Your task to perform on an android device: How much does a 2 bedroom apartment rent for in San Francisco? Image 0: 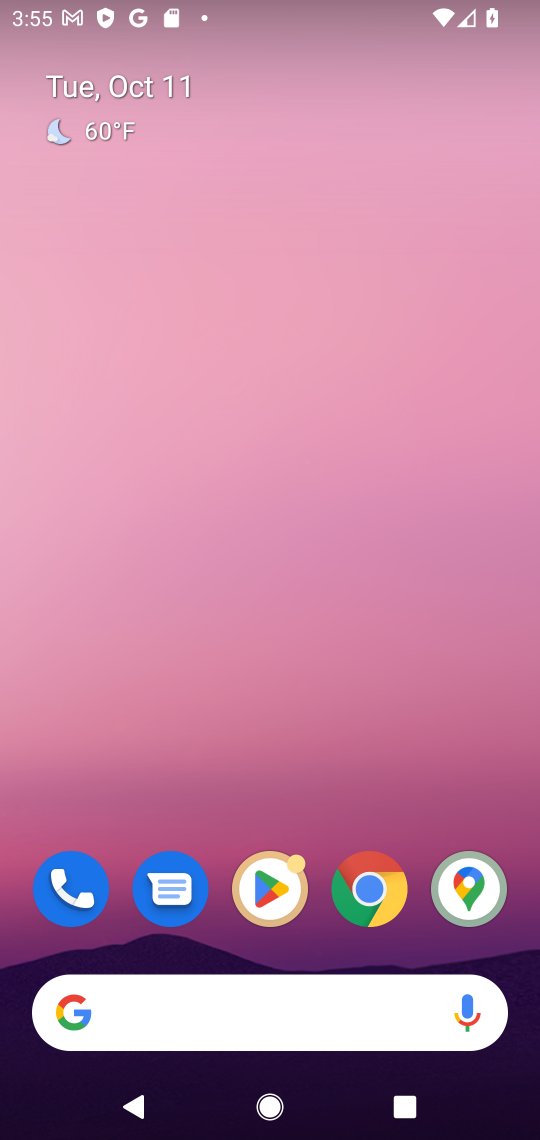
Step 0: drag from (175, 928) to (235, 334)
Your task to perform on an android device: How much does a 2 bedroom apartment rent for in San Francisco? Image 1: 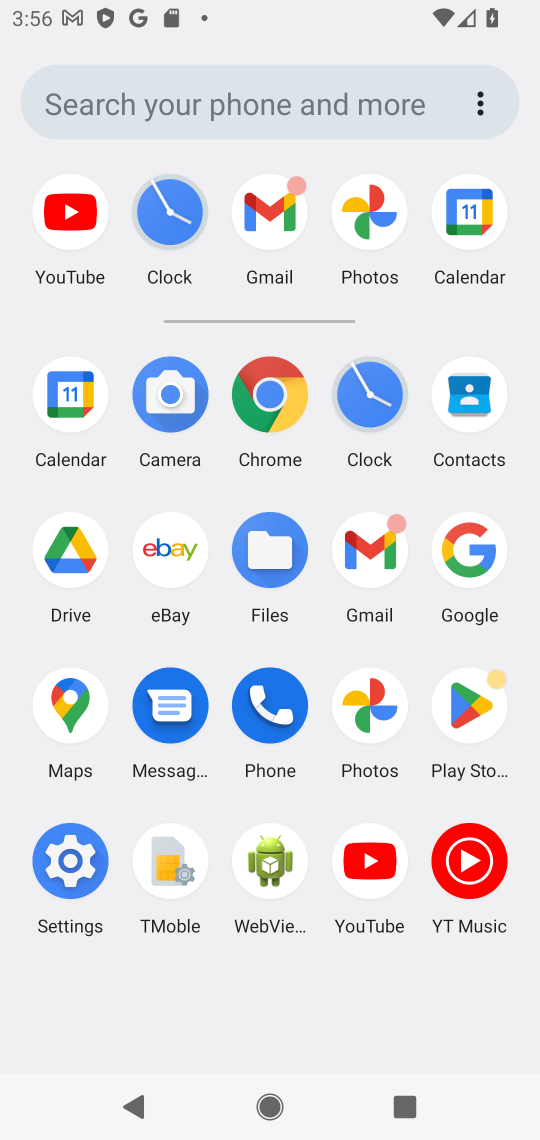
Step 1: click (477, 544)
Your task to perform on an android device: How much does a 2 bedroom apartment rent for in San Francisco? Image 2: 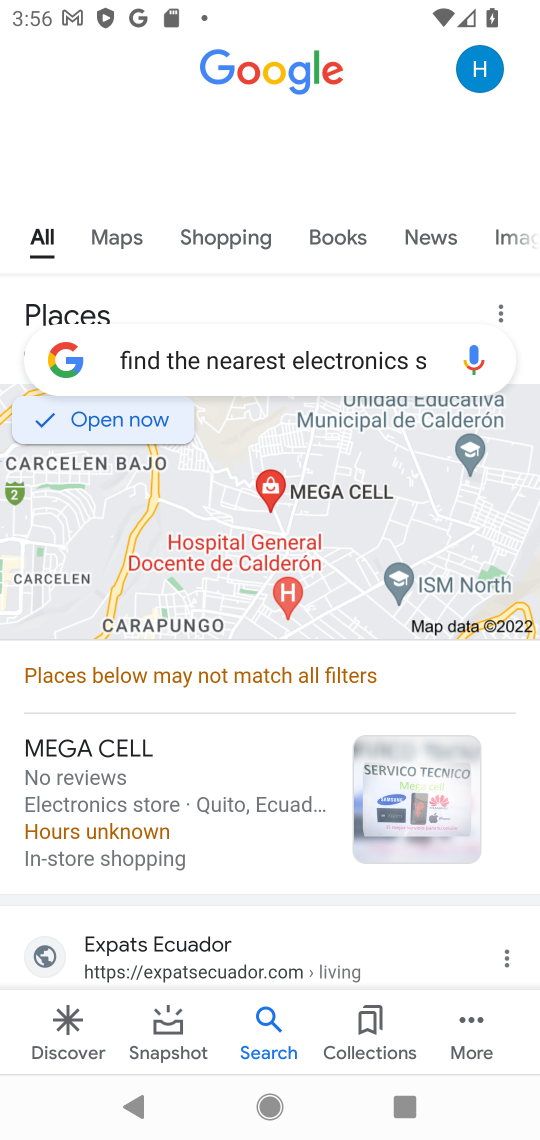
Step 2: click (267, 354)
Your task to perform on an android device: How much does a 2 bedroom apartment rent for in San Francisco? Image 3: 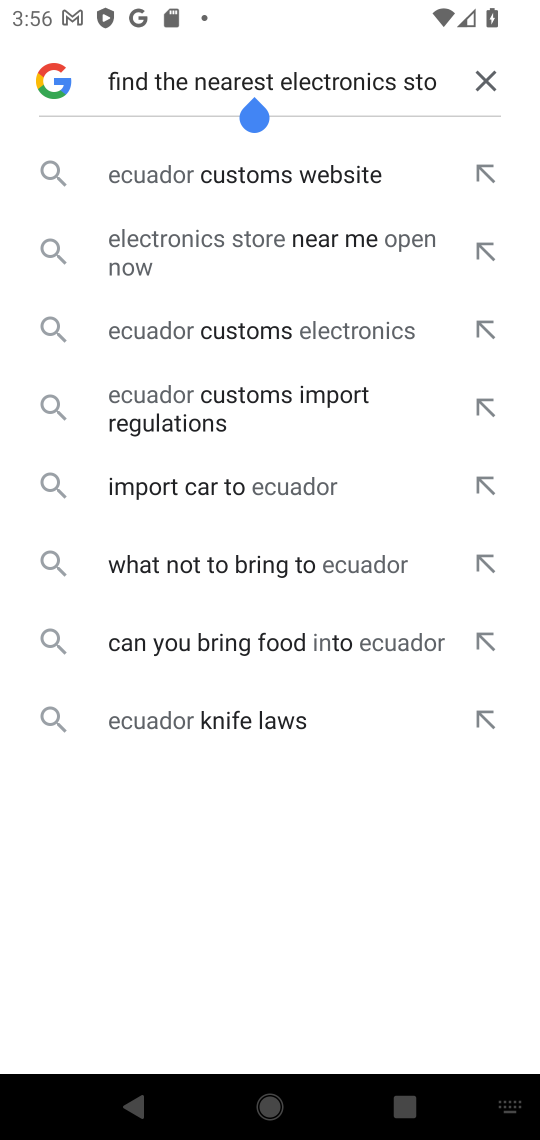
Step 3: click (479, 77)
Your task to perform on an android device: How much does a 2 bedroom apartment rent for in San Francisco? Image 4: 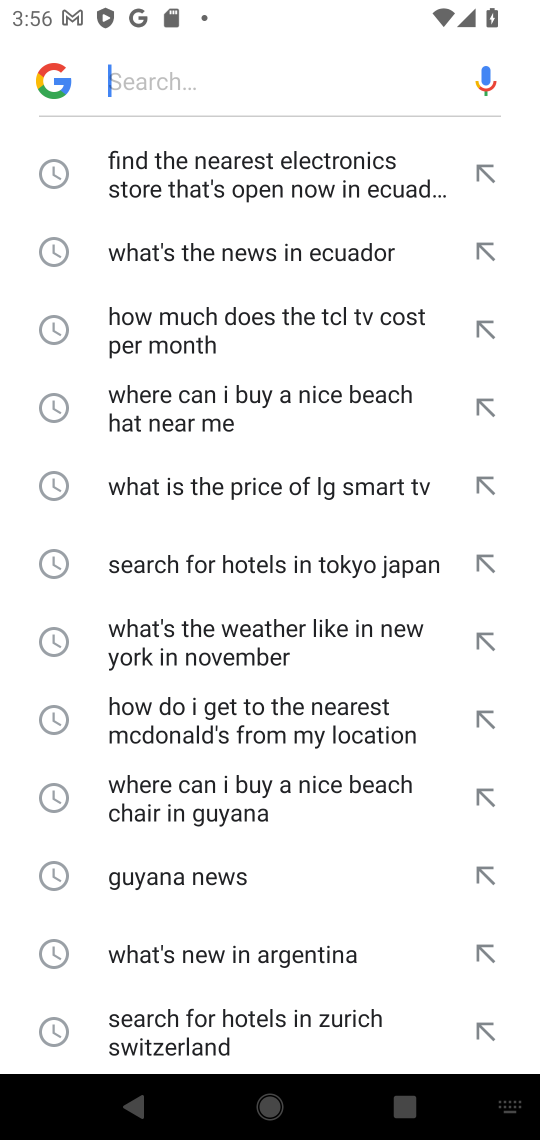
Step 4: click (162, 59)
Your task to perform on an android device: How much does a 2 bedroom apartment rent for in San Francisco? Image 5: 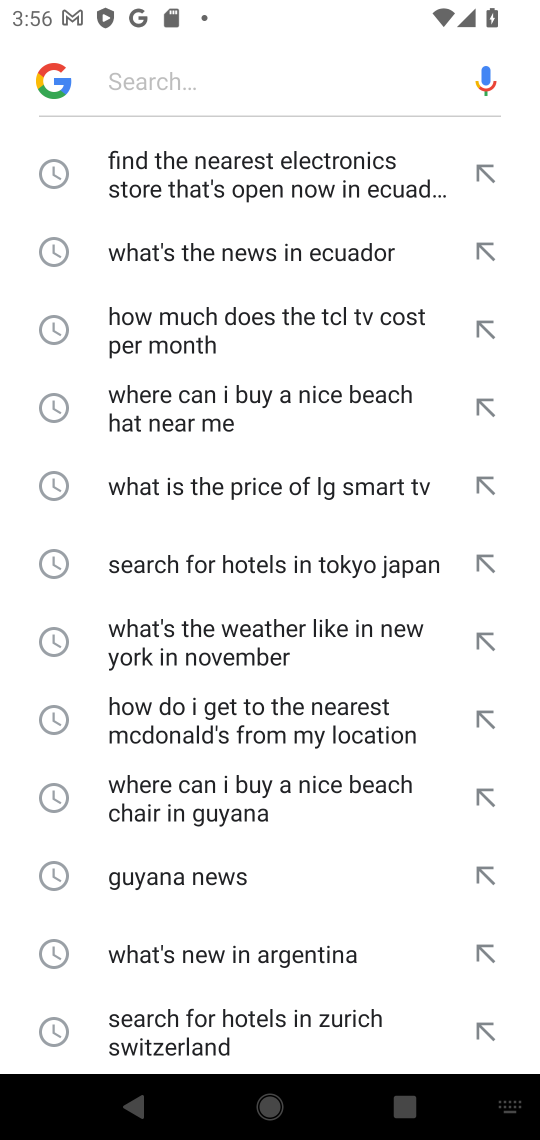
Step 5: type "How much does a 2 bedroom apartment rent for in San Francisco? "
Your task to perform on an android device: How much does a 2 bedroom apartment rent for in San Francisco? Image 6: 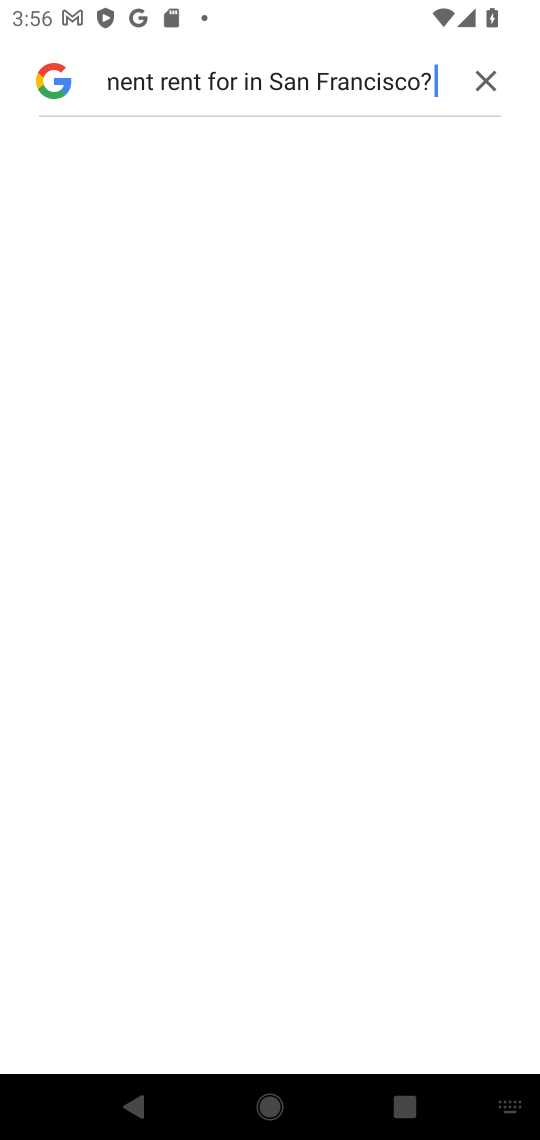
Step 6: click (319, 83)
Your task to perform on an android device: How much does a 2 bedroom apartment rent for in San Francisco? Image 7: 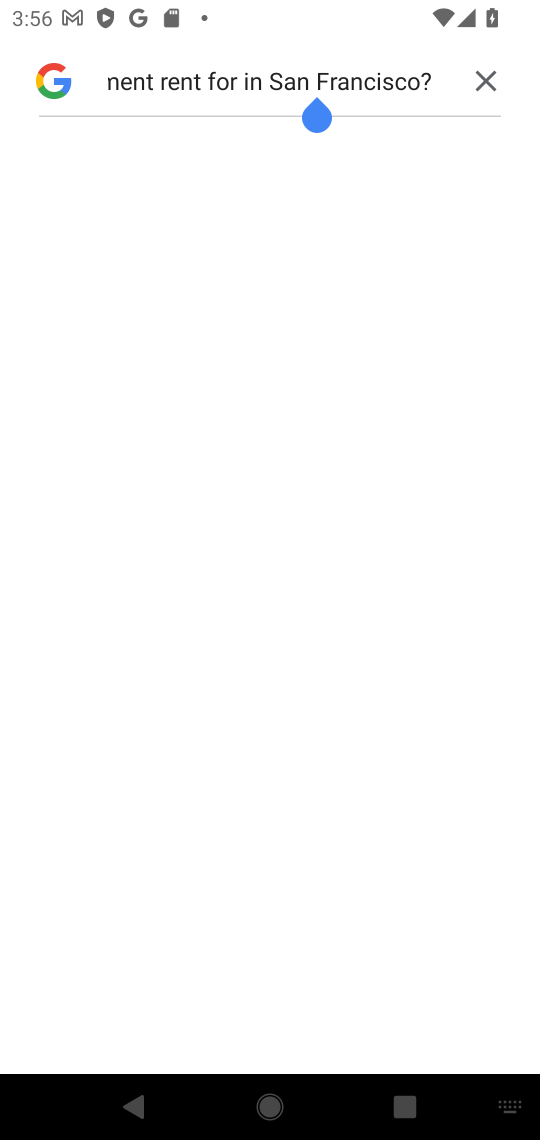
Step 7: click (382, 166)
Your task to perform on an android device: How much does a 2 bedroom apartment rent for in San Francisco? Image 8: 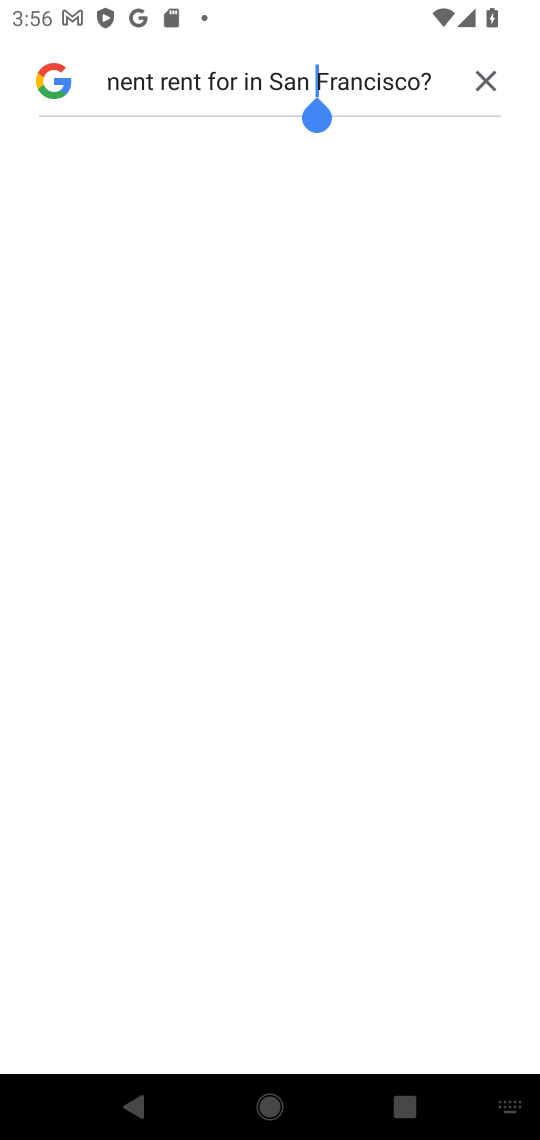
Step 8: click (402, 75)
Your task to perform on an android device: How much does a 2 bedroom apartment rent for in San Francisco? Image 9: 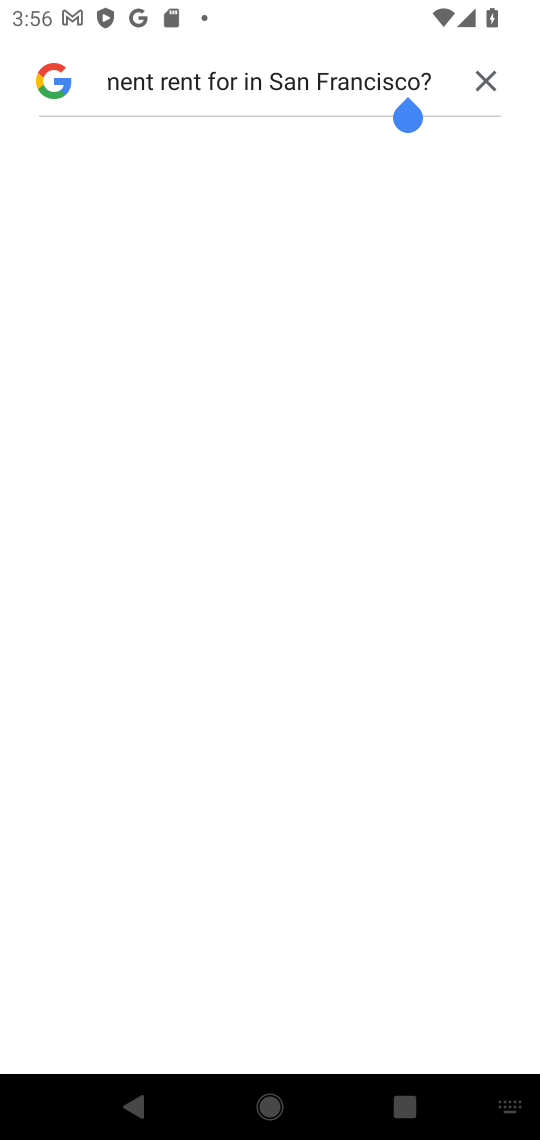
Step 9: click (418, 87)
Your task to perform on an android device: How much does a 2 bedroom apartment rent for in San Francisco? Image 10: 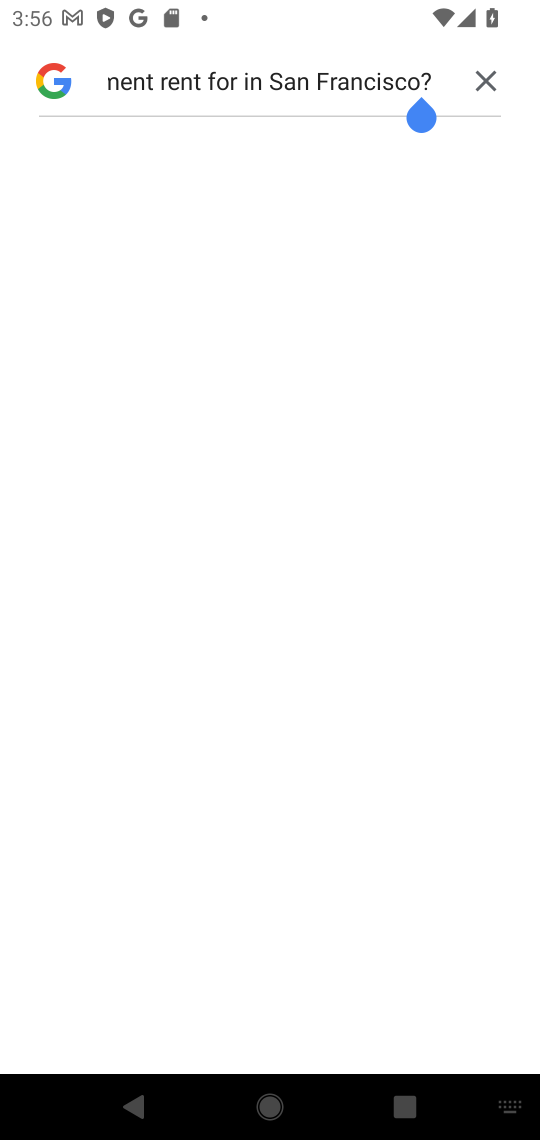
Step 10: click (429, 70)
Your task to perform on an android device: How much does a 2 bedroom apartment rent for in San Francisco? Image 11: 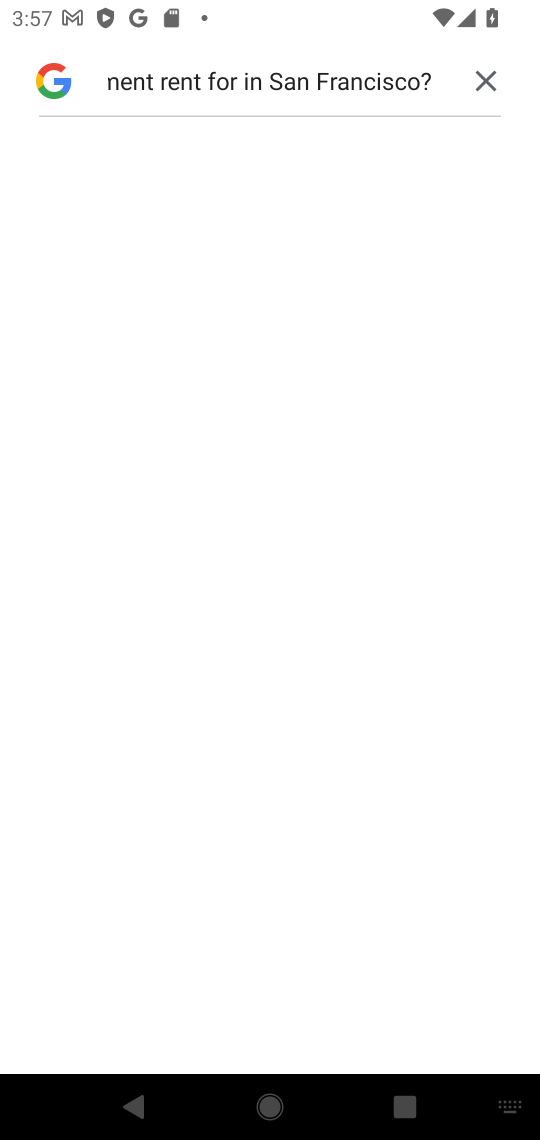
Step 11: click (491, 86)
Your task to perform on an android device: How much does a 2 bedroom apartment rent for in San Francisco? Image 12: 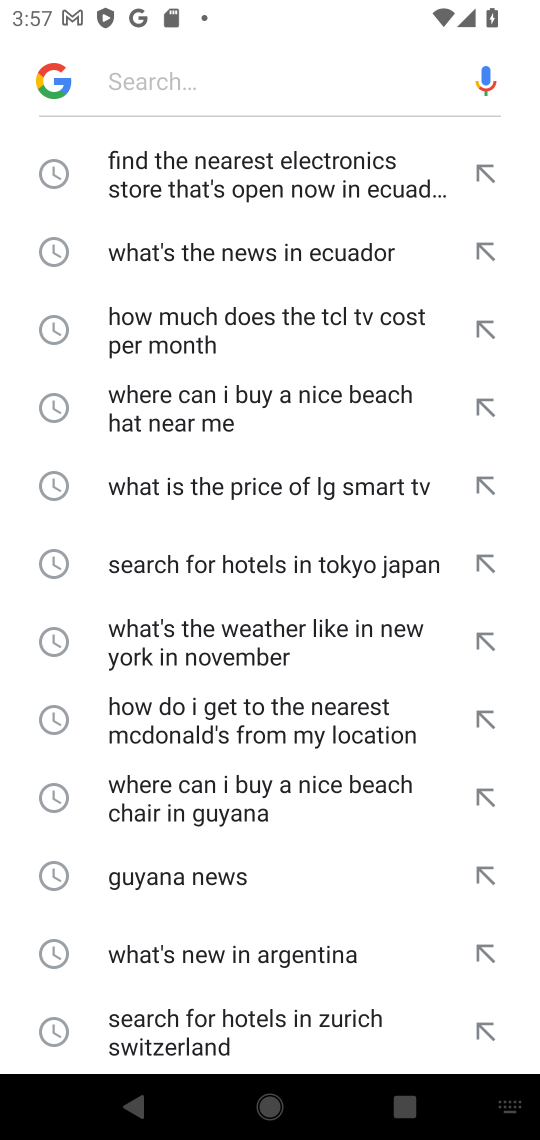
Step 12: click (217, 72)
Your task to perform on an android device: How much does a 2 bedroom apartment rent for in San Francisco? Image 13: 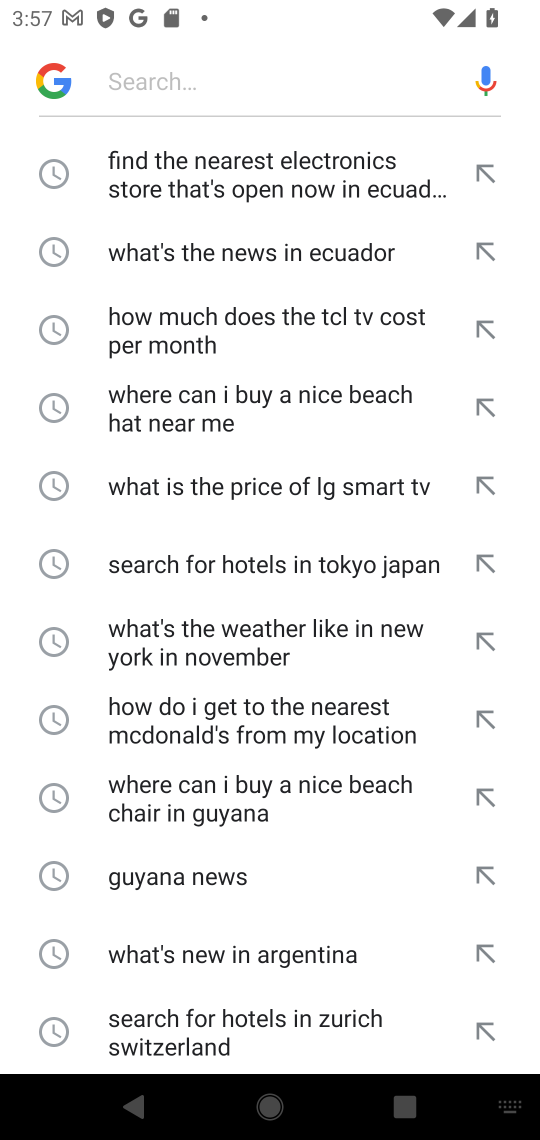
Step 13: type "How much does a 2 bedroom apartment rent for in San Francisco "
Your task to perform on an android device: How much does a 2 bedroom apartment rent for in San Francisco? Image 14: 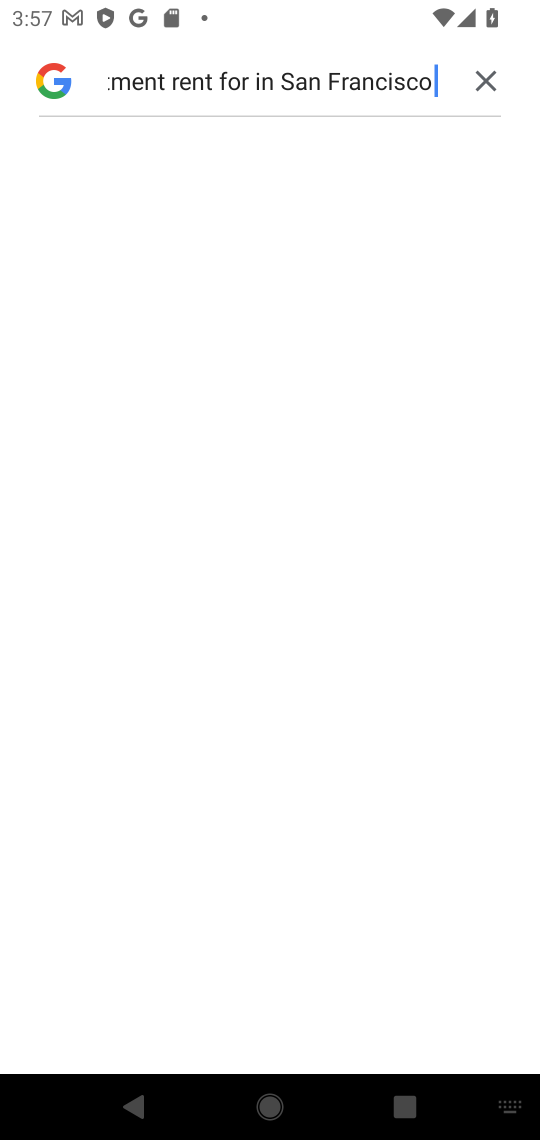
Step 14: click (183, 148)
Your task to perform on an android device: How much does a 2 bedroom apartment rent for in San Francisco? Image 15: 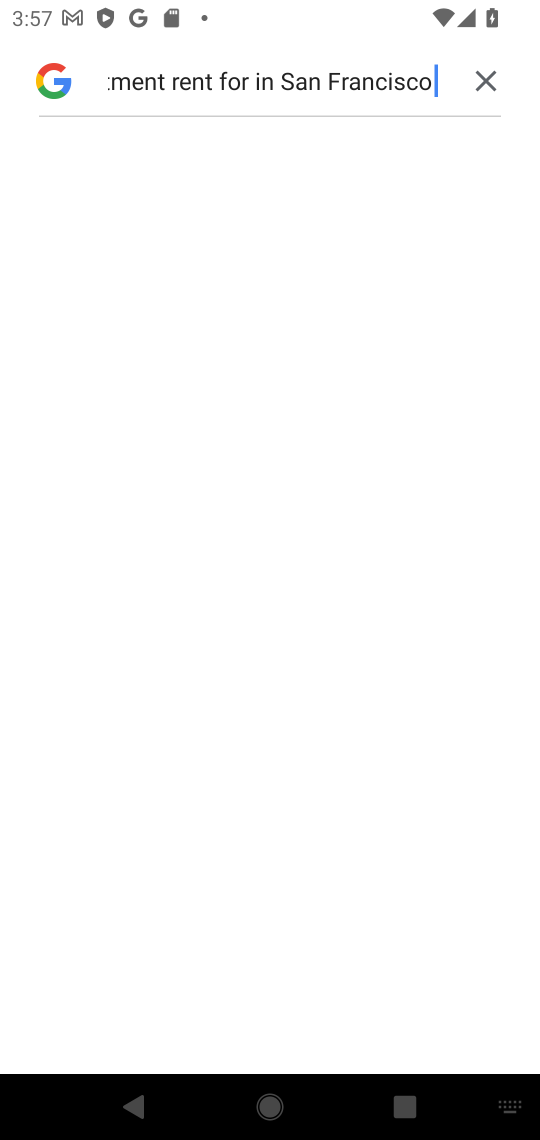
Step 15: click (263, 79)
Your task to perform on an android device: How much does a 2 bedroom apartment rent for in San Francisco? Image 16: 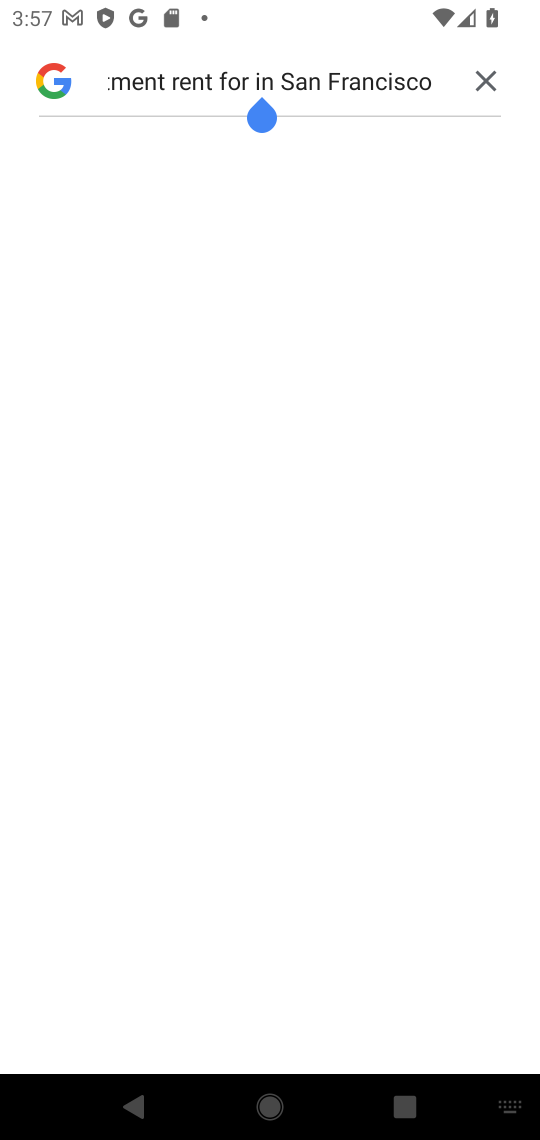
Step 16: click (444, 74)
Your task to perform on an android device: How much does a 2 bedroom apartment rent for in San Francisco? Image 17: 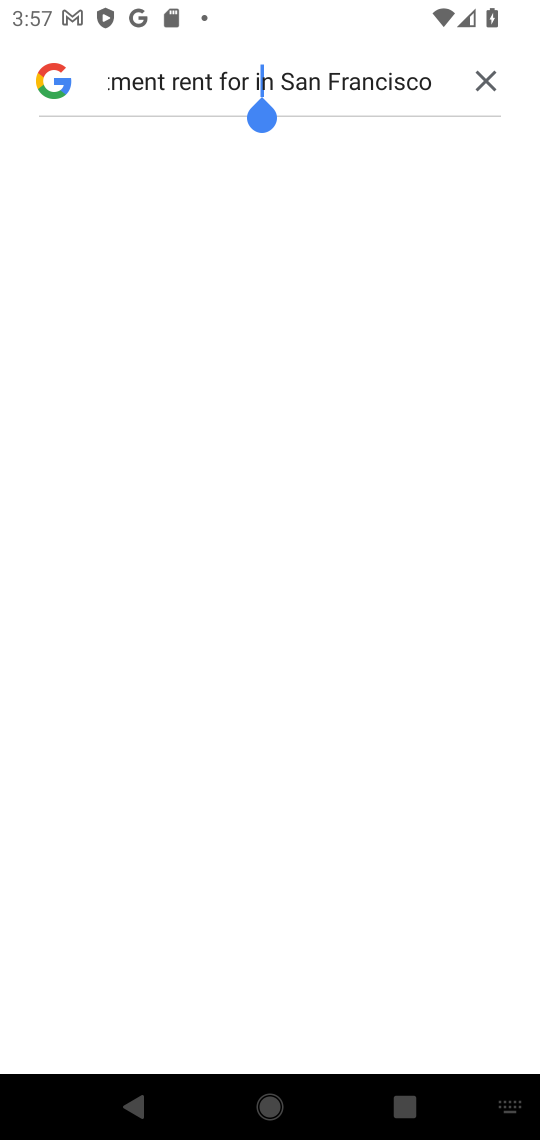
Step 17: click (432, 93)
Your task to perform on an android device: How much does a 2 bedroom apartment rent for in San Francisco? Image 18: 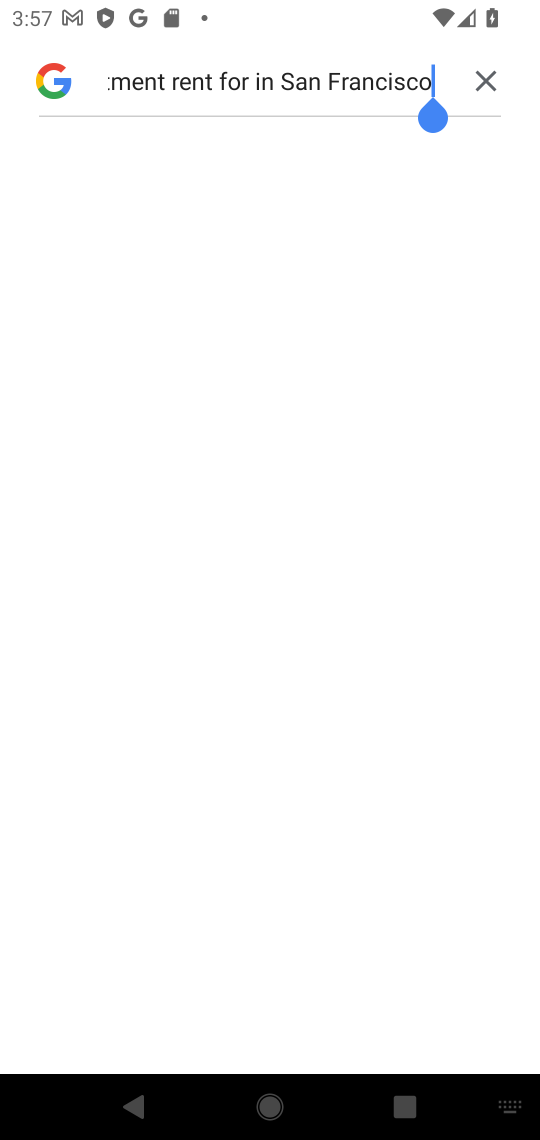
Step 18: click (432, 93)
Your task to perform on an android device: How much does a 2 bedroom apartment rent for in San Francisco? Image 19: 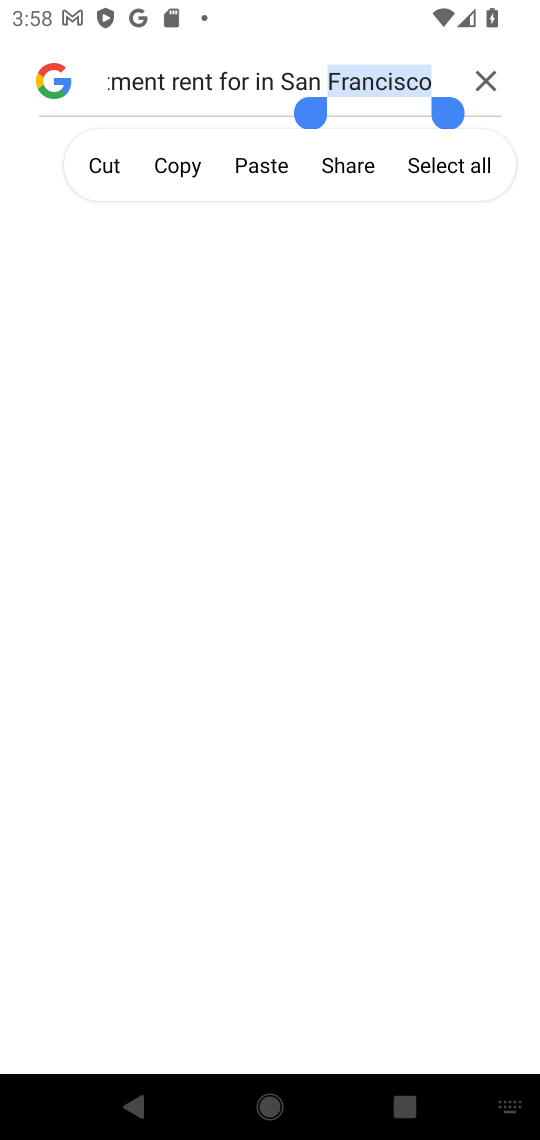
Step 19: click (498, 90)
Your task to perform on an android device: How much does a 2 bedroom apartment rent for in San Francisco? Image 20: 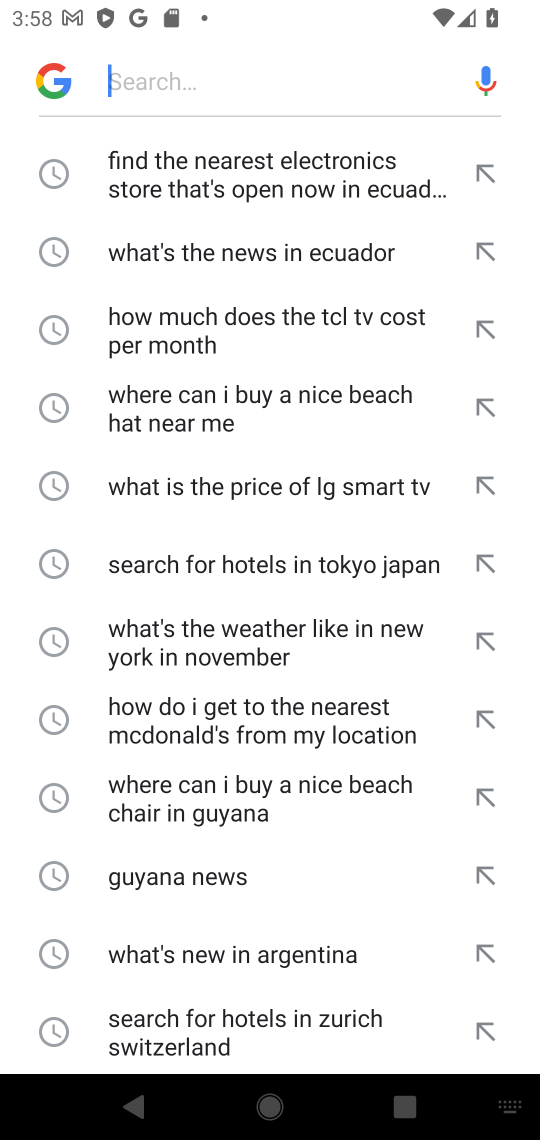
Step 20: click (243, 89)
Your task to perform on an android device: How much does a 2 bedroom apartment rent for in San Francisco? Image 21: 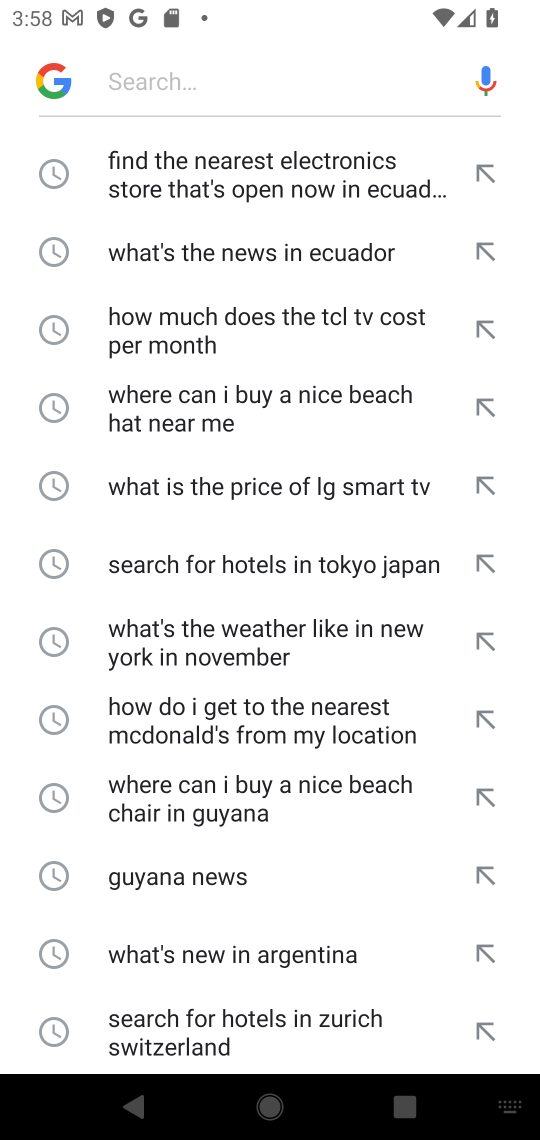
Step 21: type "How much does a 2 bedroom apartment rent for in San Francisco? "
Your task to perform on an android device: How much does a 2 bedroom apartment rent for in San Francisco? Image 22: 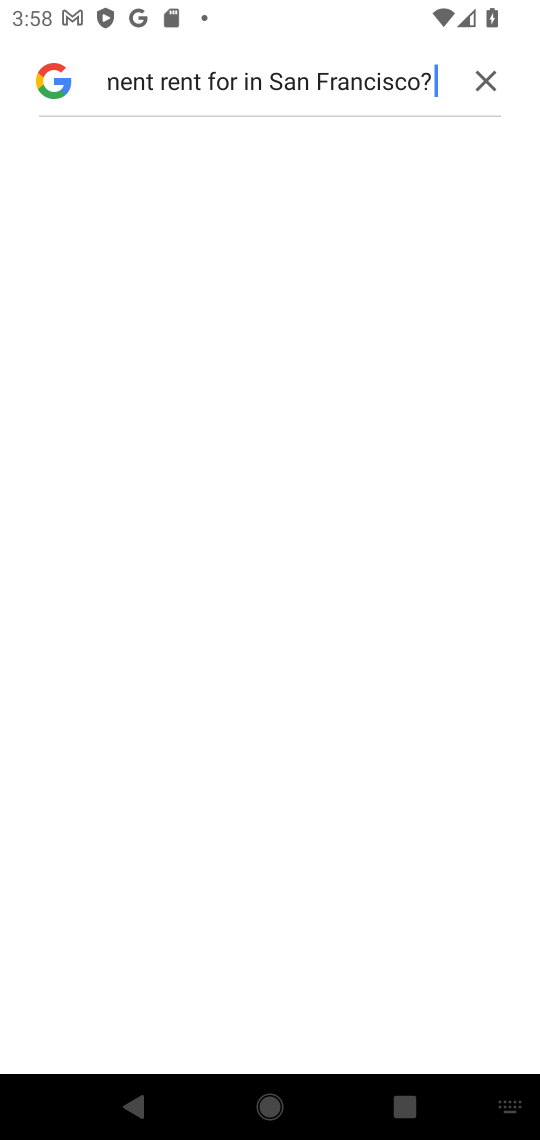
Step 22: task complete